Your task to perform on an android device: Open eBay Image 0: 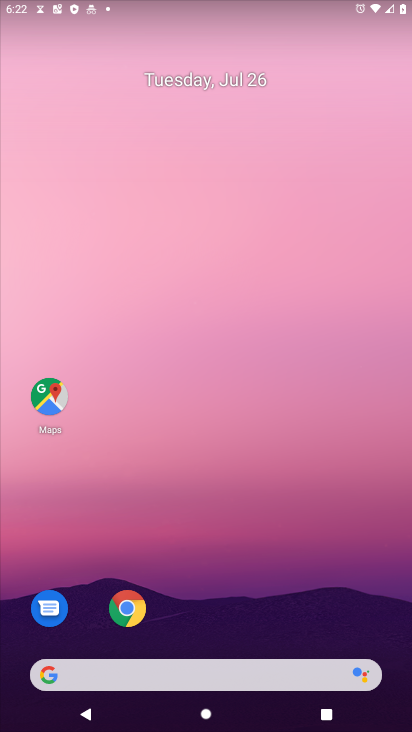
Step 0: press home button
Your task to perform on an android device: Open eBay Image 1: 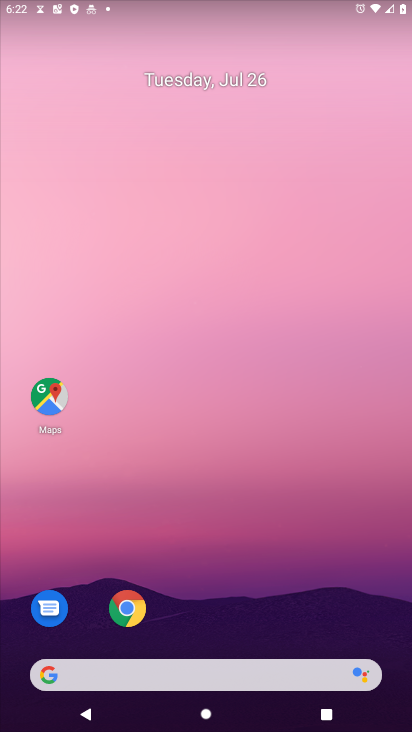
Step 1: click (42, 682)
Your task to perform on an android device: Open eBay Image 2: 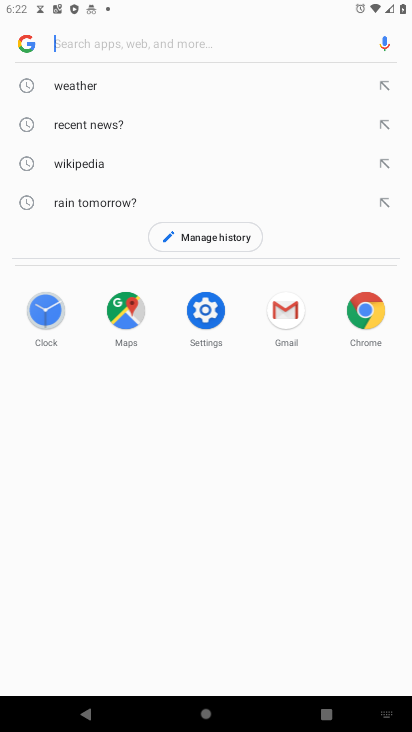
Step 2: type " eBay"
Your task to perform on an android device: Open eBay Image 3: 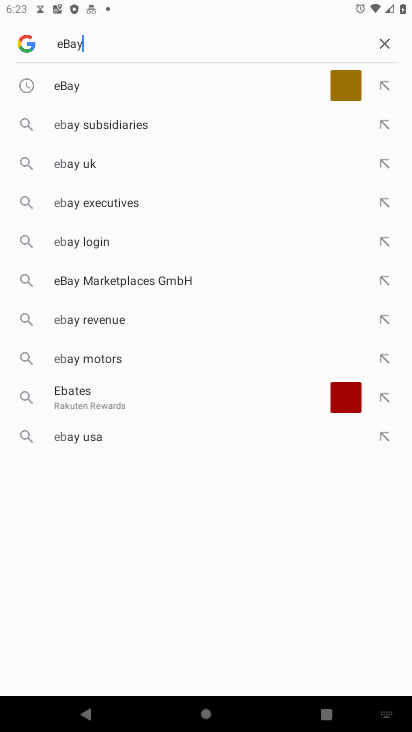
Step 3: press enter
Your task to perform on an android device: Open eBay Image 4: 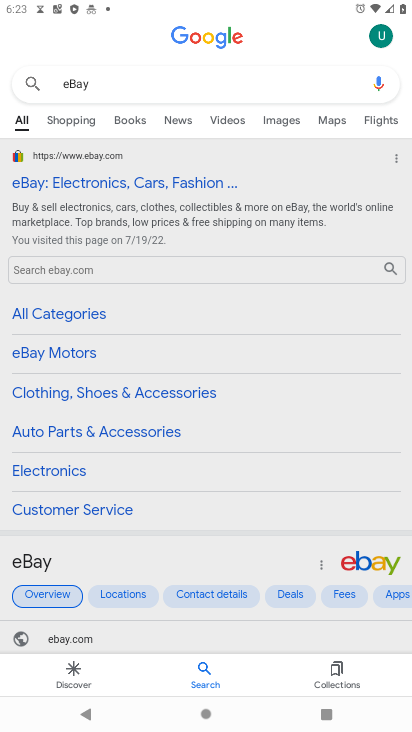
Step 4: click (89, 183)
Your task to perform on an android device: Open eBay Image 5: 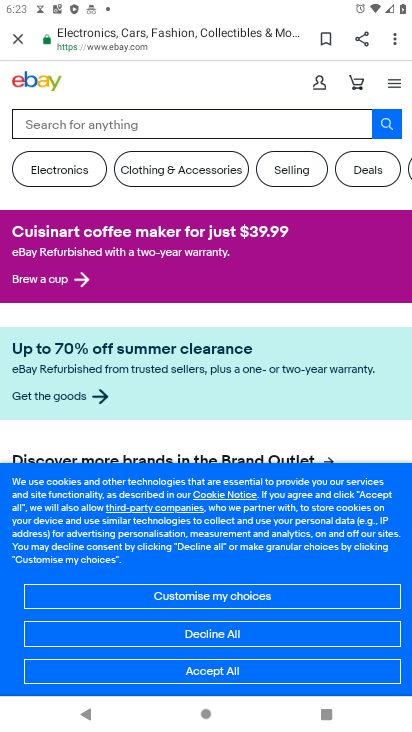
Step 5: task complete